Your task to perform on an android device: What's on my calendar today? Image 0: 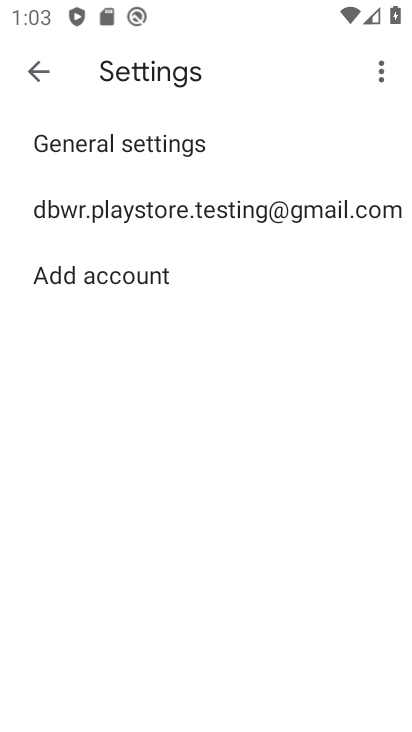
Step 0: press home button
Your task to perform on an android device: What's on my calendar today? Image 1: 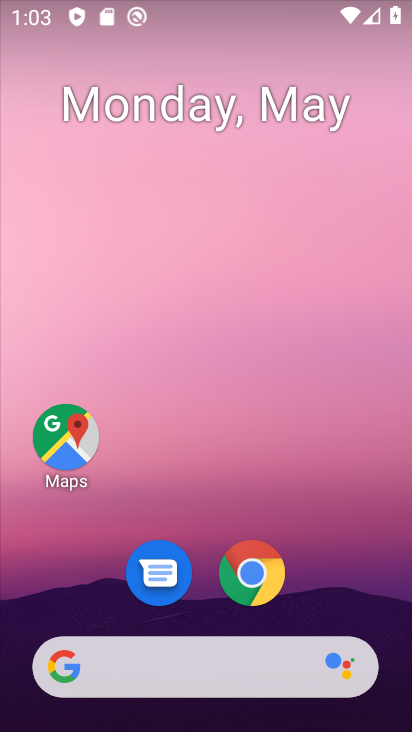
Step 1: drag from (332, 568) to (210, 187)
Your task to perform on an android device: What's on my calendar today? Image 2: 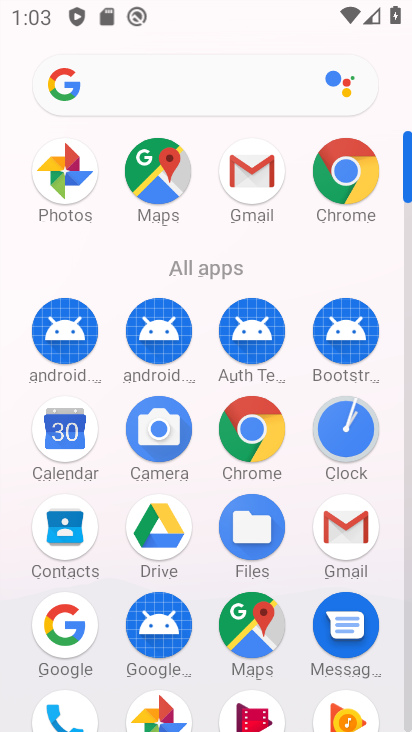
Step 2: click (64, 431)
Your task to perform on an android device: What's on my calendar today? Image 3: 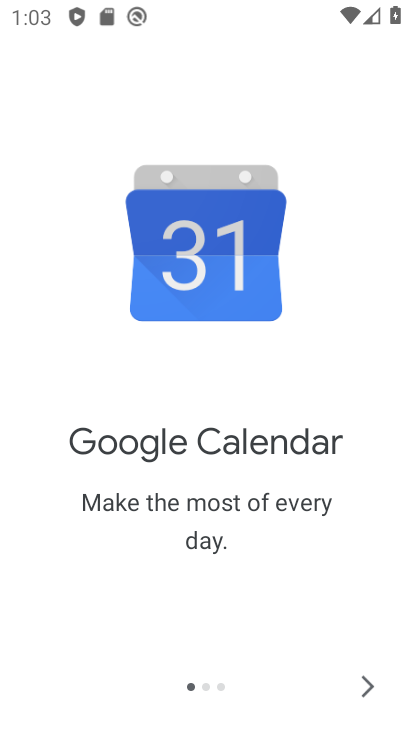
Step 3: click (371, 685)
Your task to perform on an android device: What's on my calendar today? Image 4: 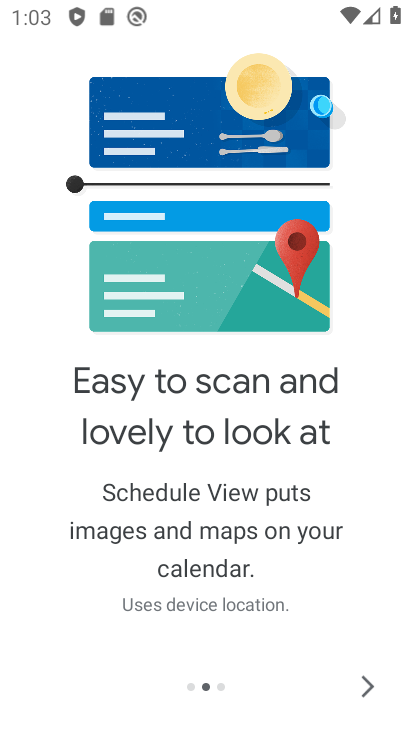
Step 4: click (371, 685)
Your task to perform on an android device: What's on my calendar today? Image 5: 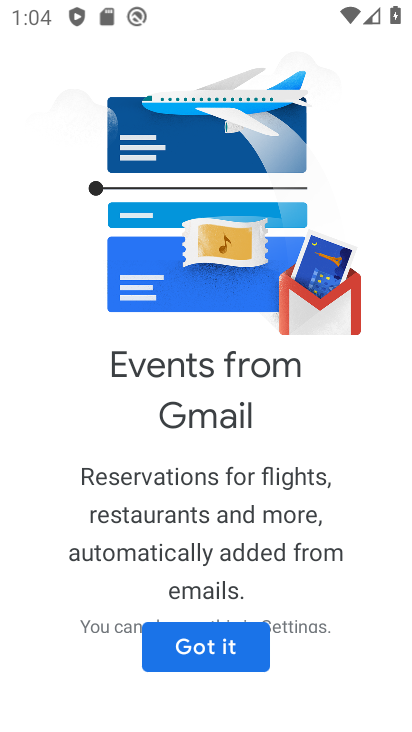
Step 5: click (215, 652)
Your task to perform on an android device: What's on my calendar today? Image 6: 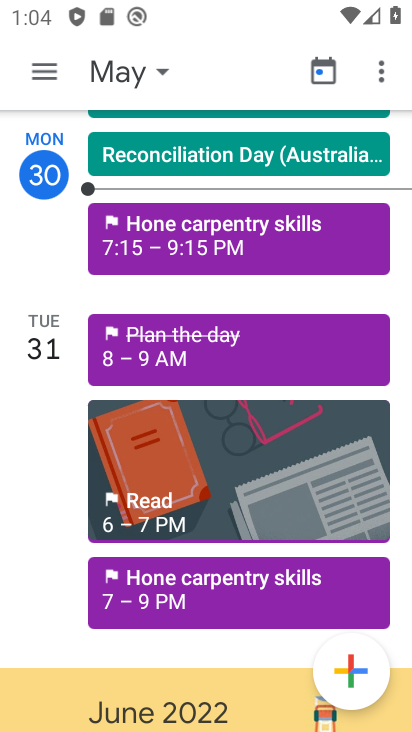
Step 6: click (160, 69)
Your task to perform on an android device: What's on my calendar today? Image 7: 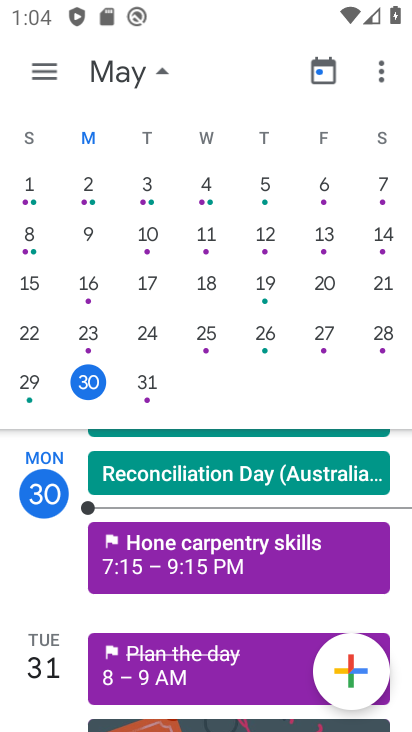
Step 7: click (90, 380)
Your task to perform on an android device: What's on my calendar today? Image 8: 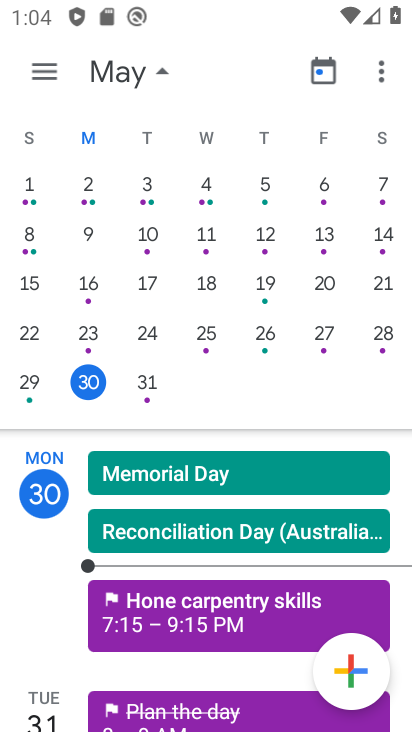
Step 8: click (38, 71)
Your task to perform on an android device: What's on my calendar today? Image 9: 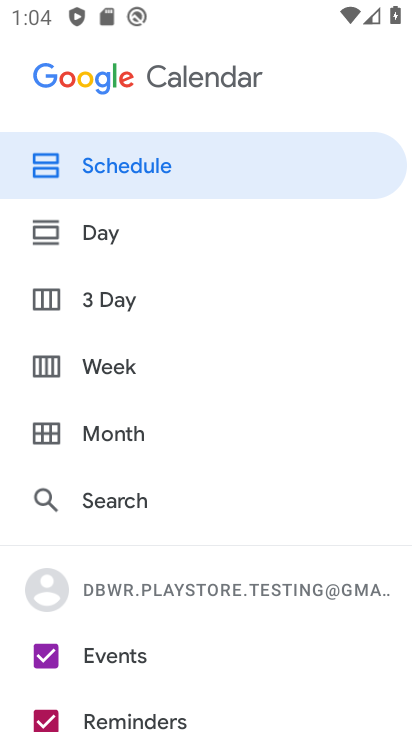
Step 9: click (173, 175)
Your task to perform on an android device: What's on my calendar today? Image 10: 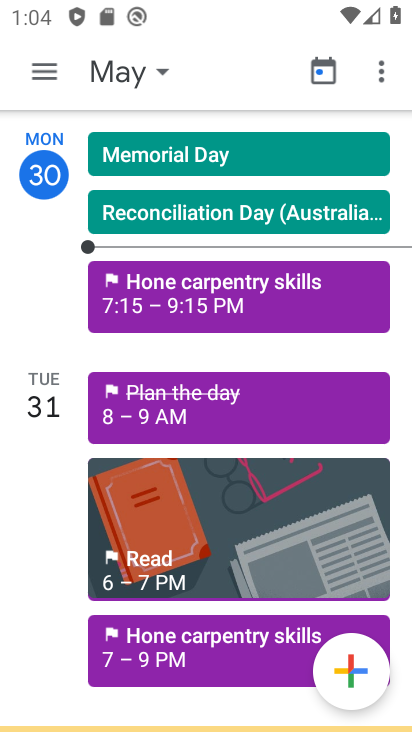
Step 10: task complete